Your task to perform on an android device: Google the capital of Bolivia Image 0: 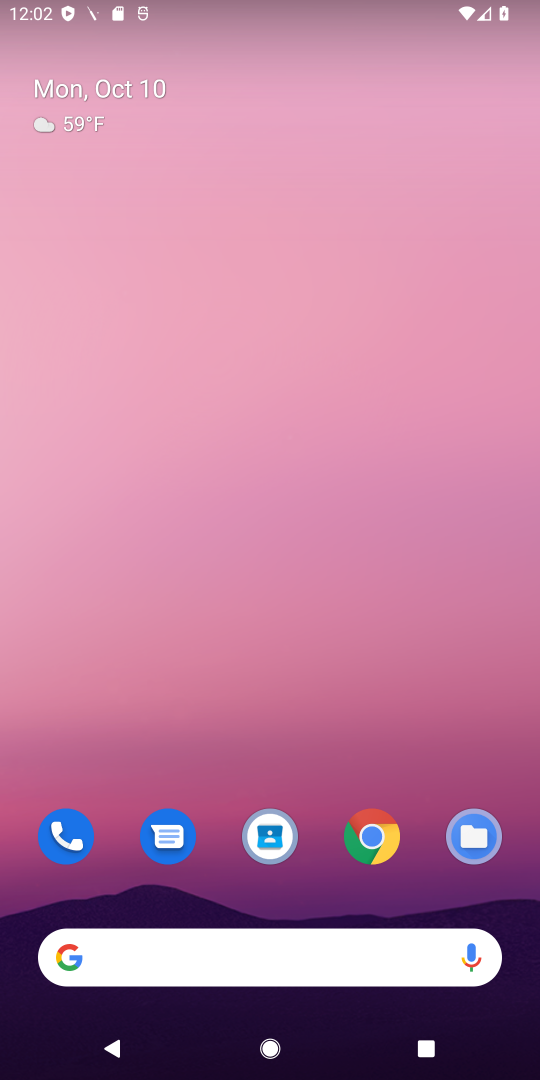
Step 0: click (393, 842)
Your task to perform on an android device: Google the capital of Bolivia Image 1: 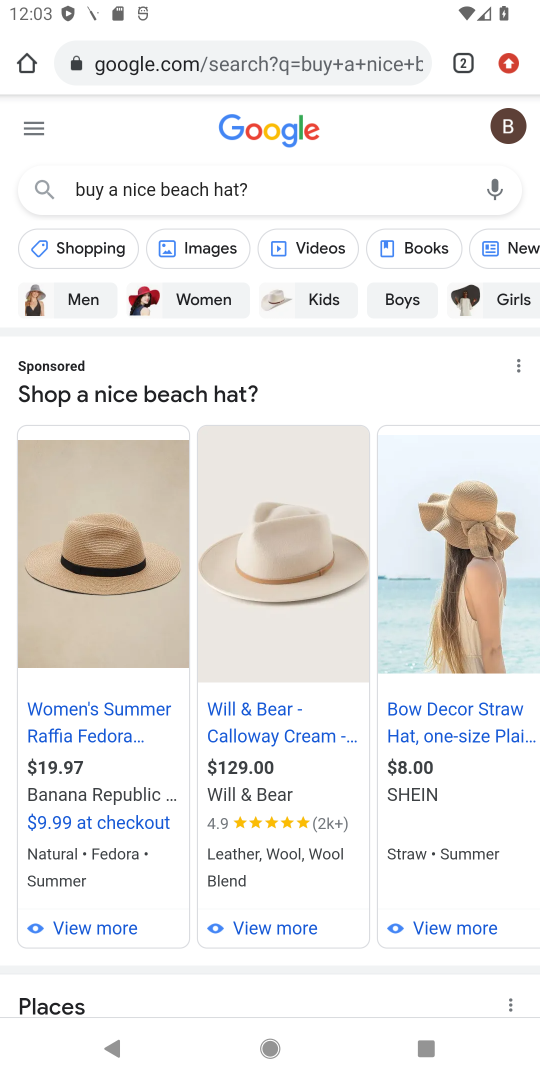
Step 1: click (254, 54)
Your task to perform on an android device: Google the capital of Bolivia Image 2: 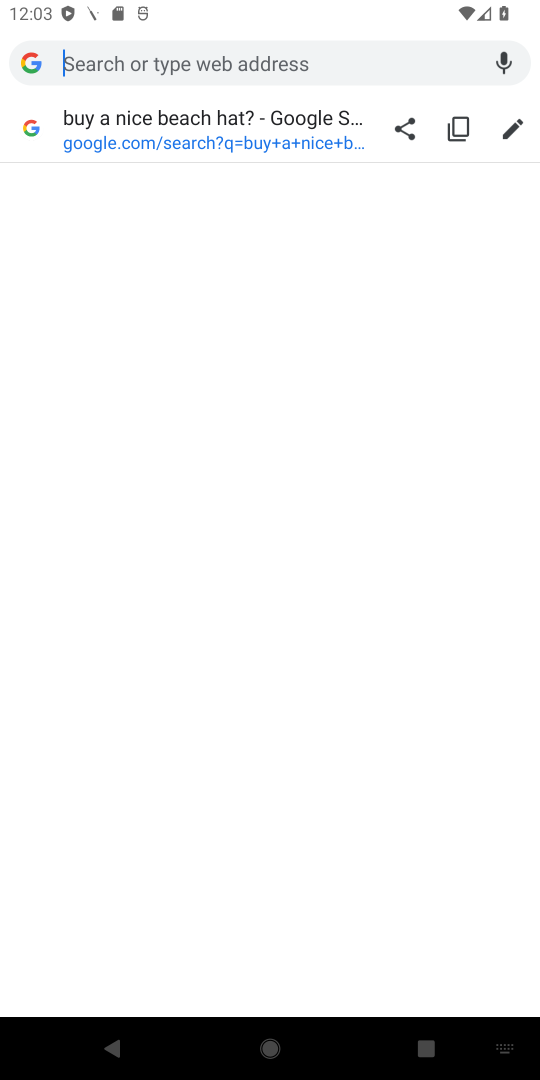
Step 2: type "capital of Bolivia"
Your task to perform on an android device: Google the capital of Bolivia Image 3: 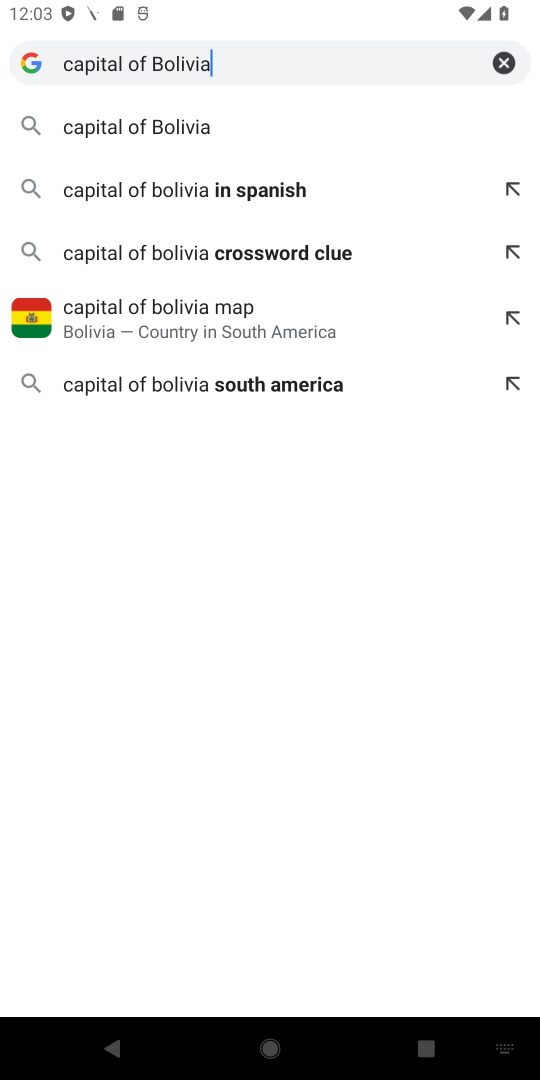
Step 3: click (293, 117)
Your task to perform on an android device: Google the capital of Bolivia Image 4: 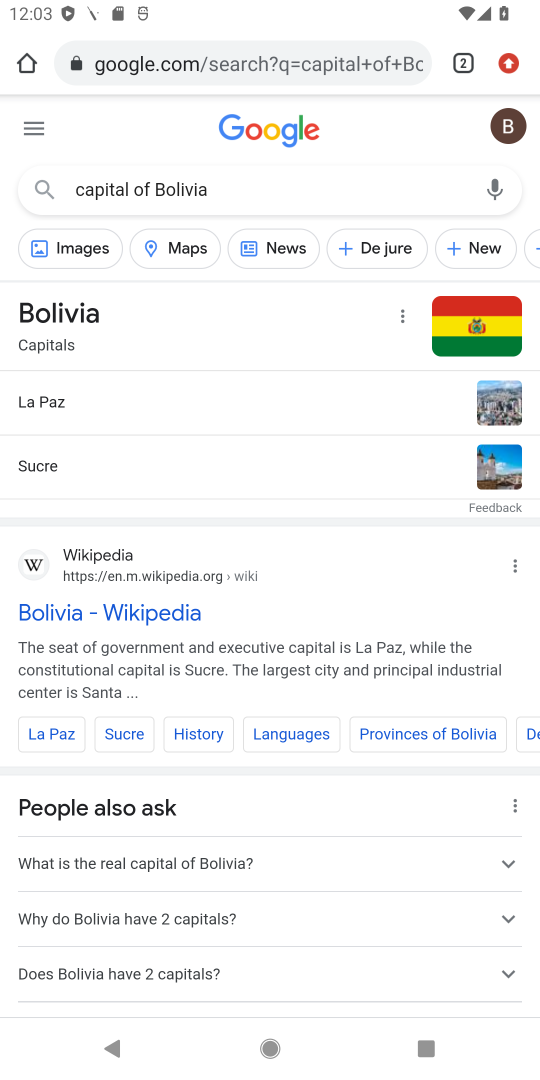
Step 4: task complete